Your task to perform on an android device: Open maps Image 0: 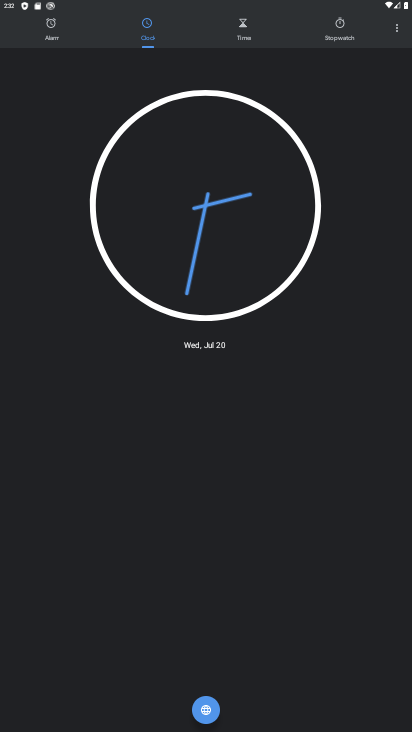
Step 0: press home button
Your task to perform on an android device: Open maps Image 1: 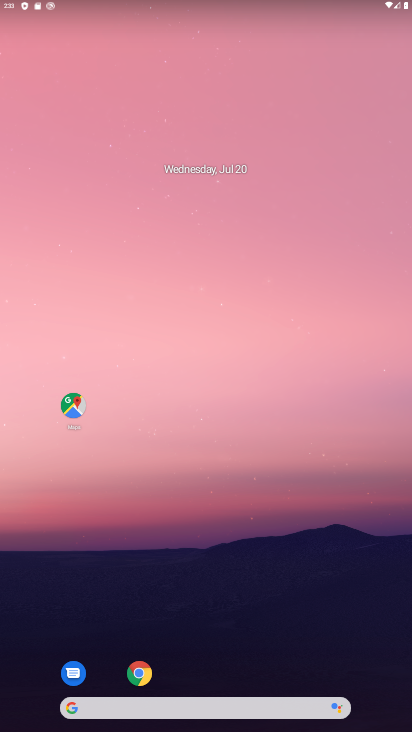
Step 1: click (57, 413)
Your task to perform on an android device: Open maps Image 2: 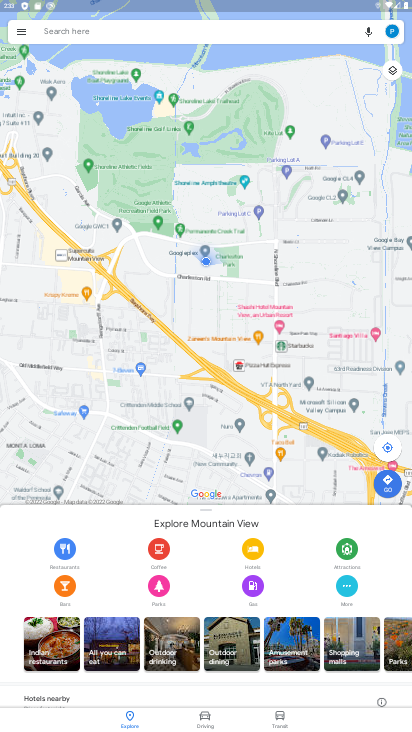
Step 2: task complete